Your task to perform on an android device: Search for pizza restaurants on Maps Image 0: 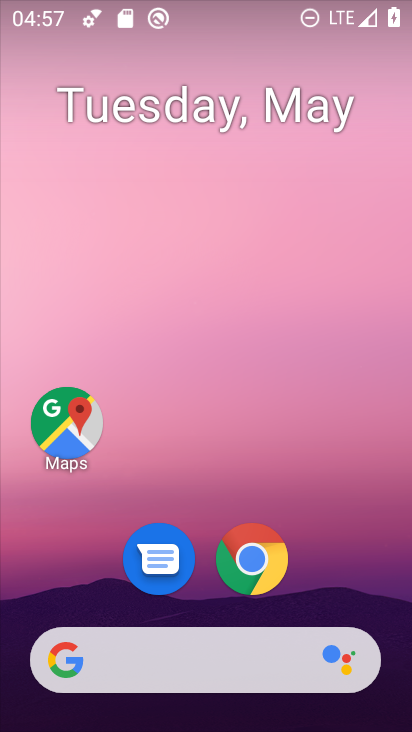
Step 0: drag from (206, 700) to (223, 310)
Your task to perform on an android device: Search for pizza restaurants on Maps Image 1: 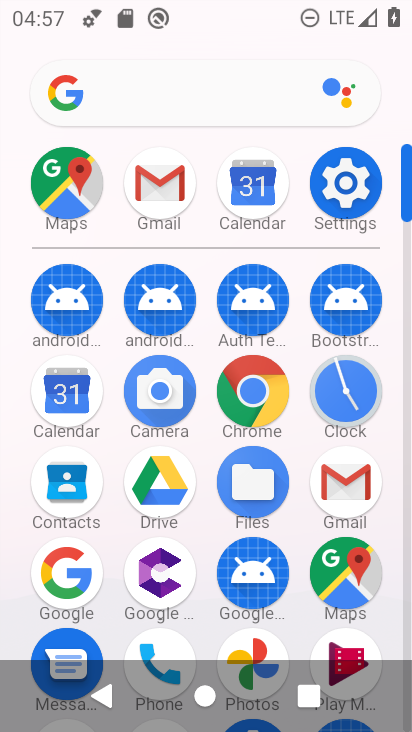
Step 1: click (340, 580)
Your task to perform on an android device: Search for pizza restaurants on Maps Image 2: 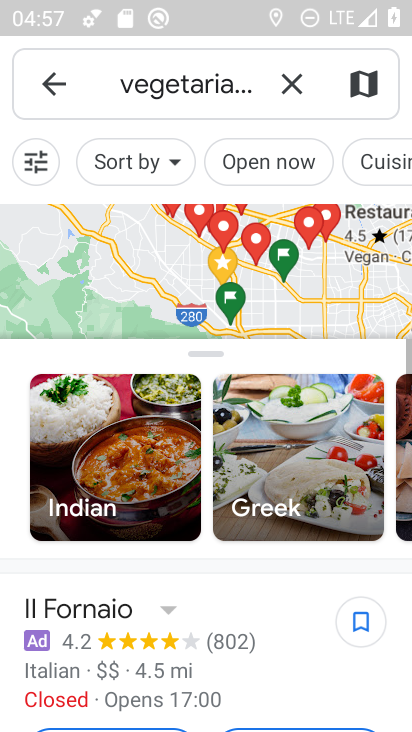
Step 2: click (286, 84)
Your task to perform on an android device: Search for pizza restaurants on Maps Image 3: 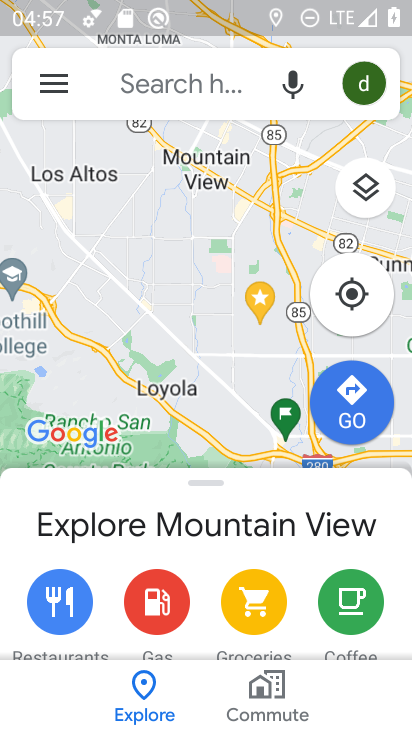
Step 3: click (138, 96)
Your task to perform on an android device: Search for pizza restaurants on Maps Image 4: 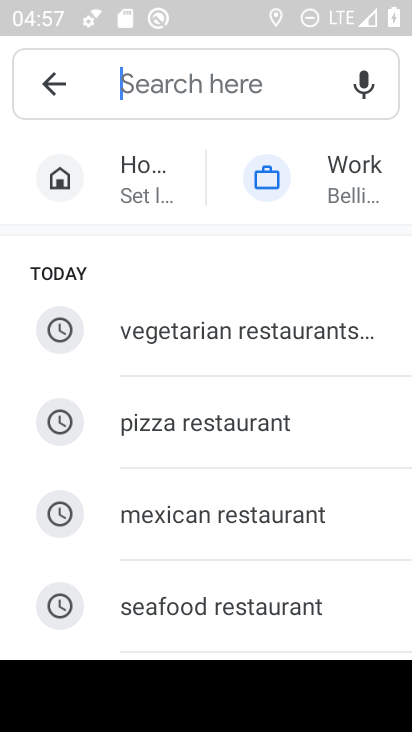
Step 4: type "Pizza restaurants"
Your task to perform on an android device: Search for pizza restaurants on Maps Image 5: 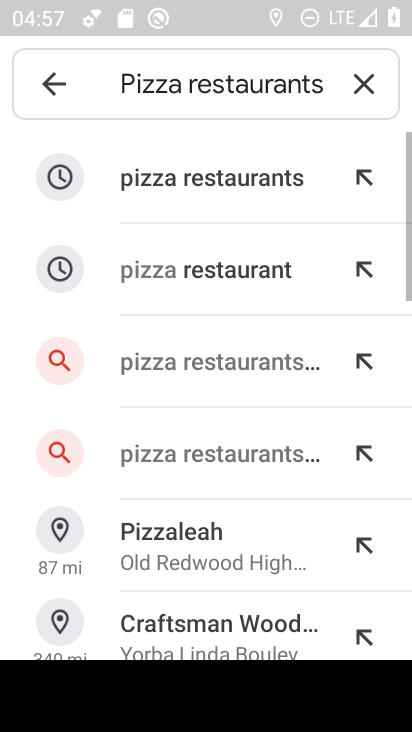
Step 5: click (144, 177)
Your task to perform on an android device: Search for pizza restaurants on Maps Image 6: 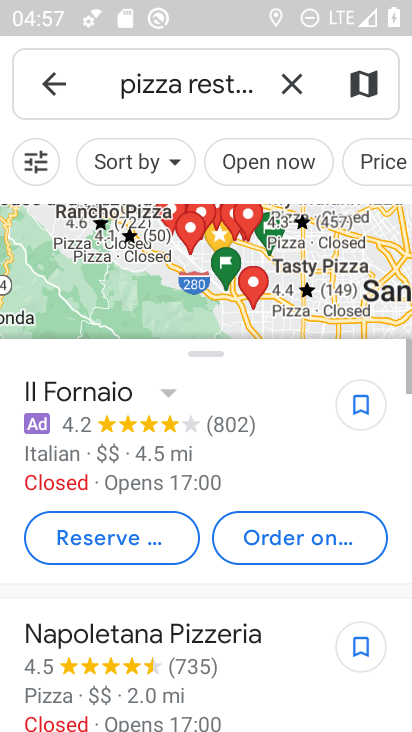
Step 6: task complete